Your task to perform on an android device: Go to Maps Image 0: 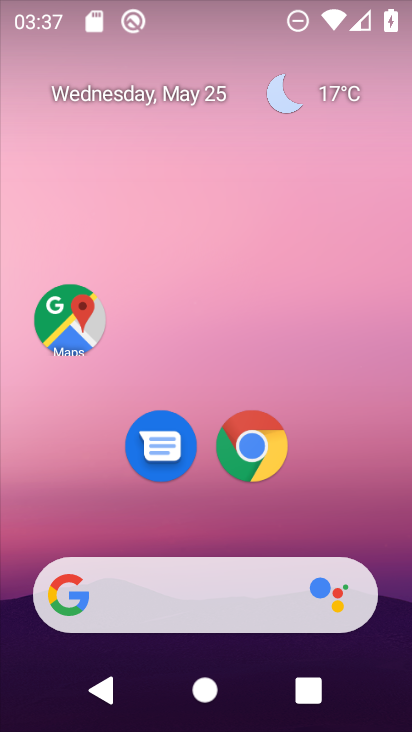
Step 0: click (65, 326)
Your task to perform on an android device: Go to Maps Image 1: 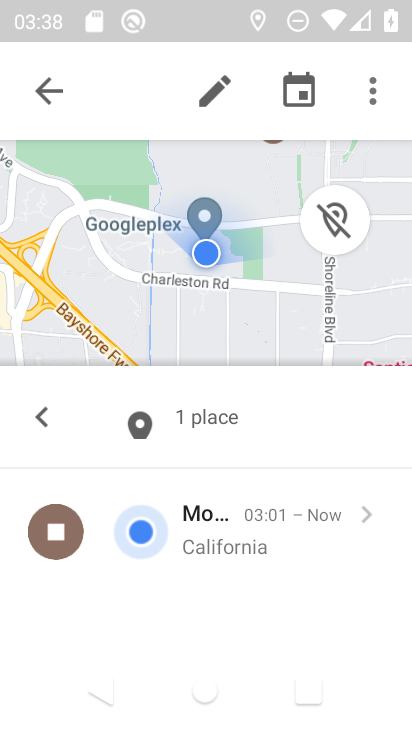
Step 1: click (52, 102)
Your task to perform on an android device: Go to Maps Image 2: 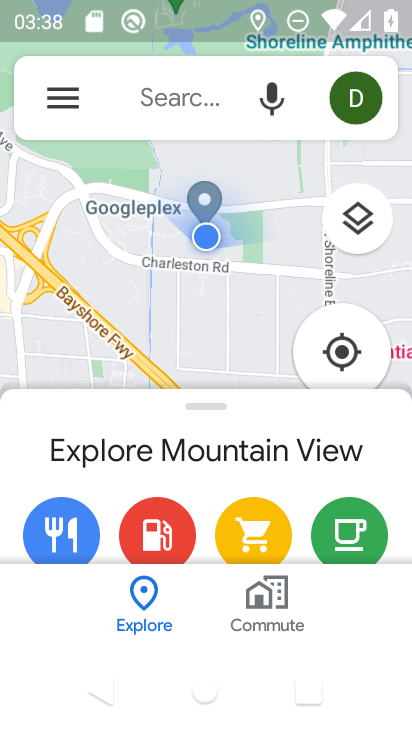
Step 2: task complete